Your task to perform on an android device: Open Google Maps and go to "Timeline" Image 0: 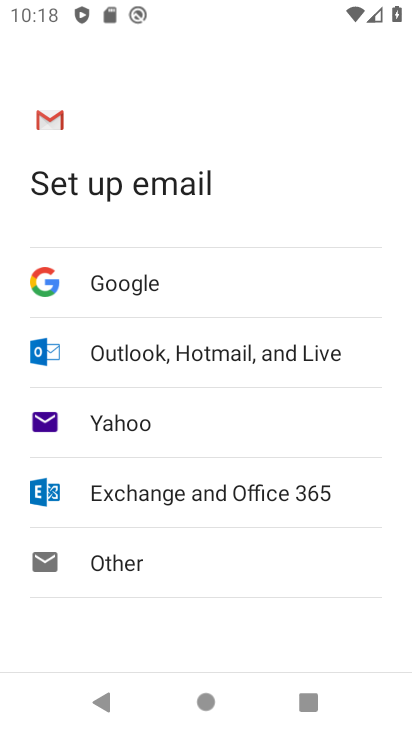
Step 0: press home button
Your task to perform on an android device: Open Google Maps and go to "Timeline" Image 1: 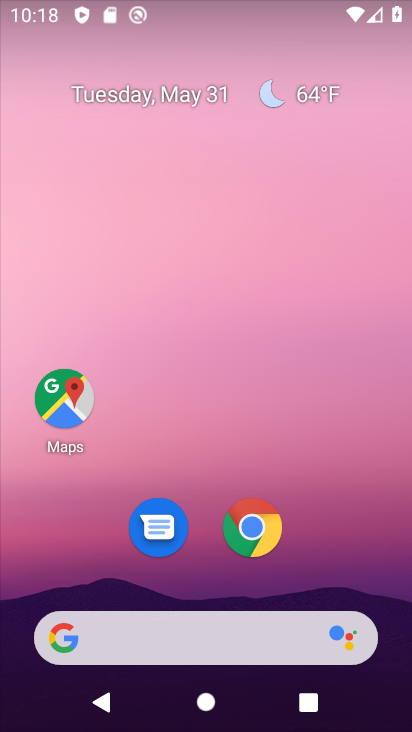
Step 1: click (76, 384)
Your task to perform on an android device: Open Google Maps and go to "Timeline" Image 2: 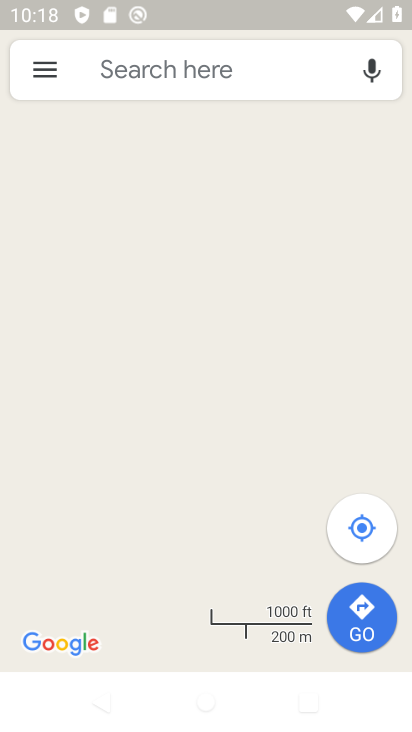
Step 2: click (34, 71)
Your task to perform on an android device: Open Google Maps and go to "Timeline" Image 3: 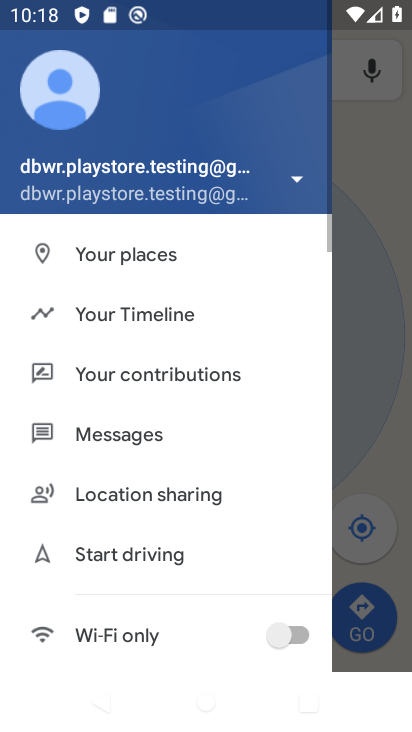
Step 3: click (160, 308)
Your task to perform on an android device: Open Google Maps and go to "Timeline" Image 4: 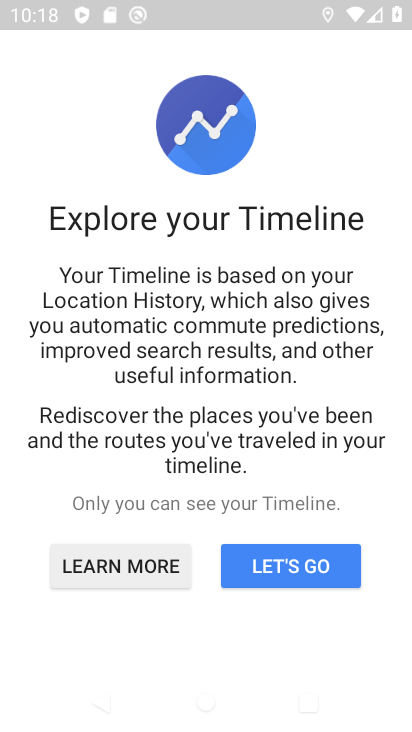
Step 4: drag from (306, 660) to (296, 193)
Your task to perform on an android device: Open Google Maps and go to "Timeline" Image 5: 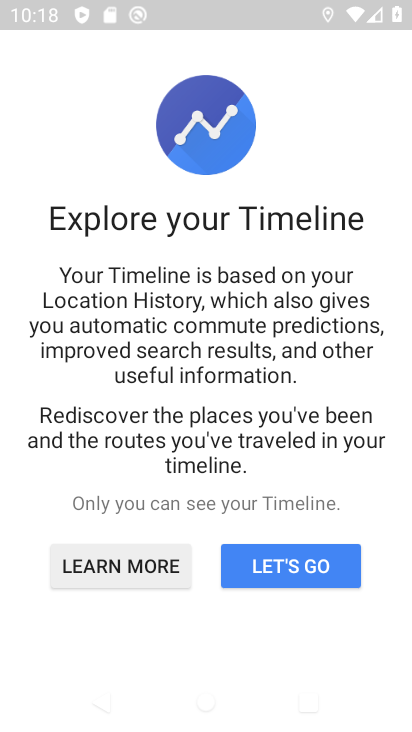
Step 5: drag from (193, 600) to (325, 57)
Your task to perform on an android device: Open Google Maps and go to "Timeline" Image 6: 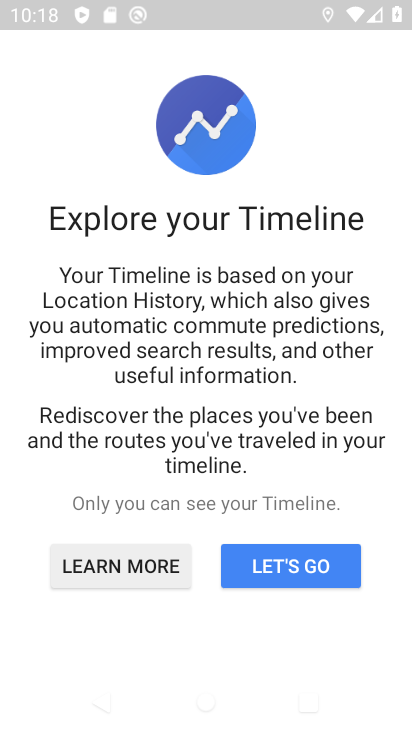
Step 6: press back button
Your task to perform on an android device: Open Google Maps and go to "Timeline" Image 7: 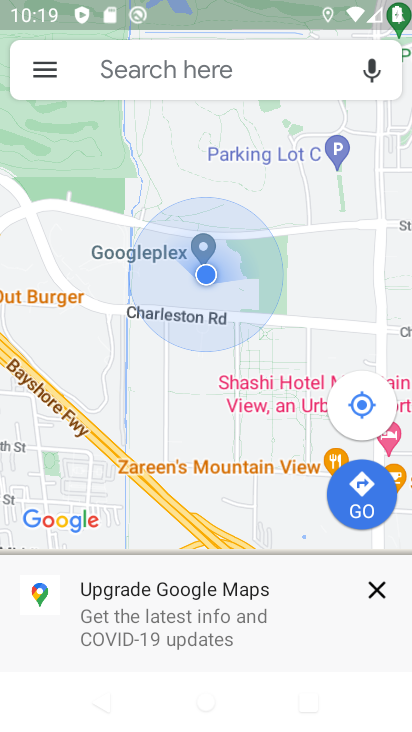
Step 7: click (35, 67)
Your task to perform on an android device: Open Google Maps and go to "Timeline" Image 8: 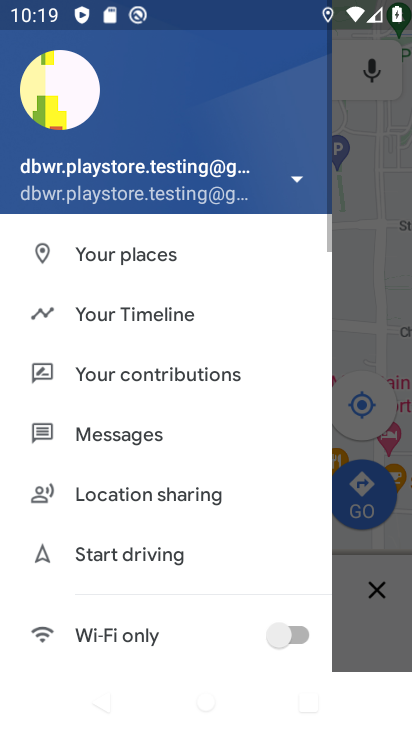
Step 8: click (108, 311)
Your task to perform on an android device: Open Google Maps and go to "Timeline" Image 9: 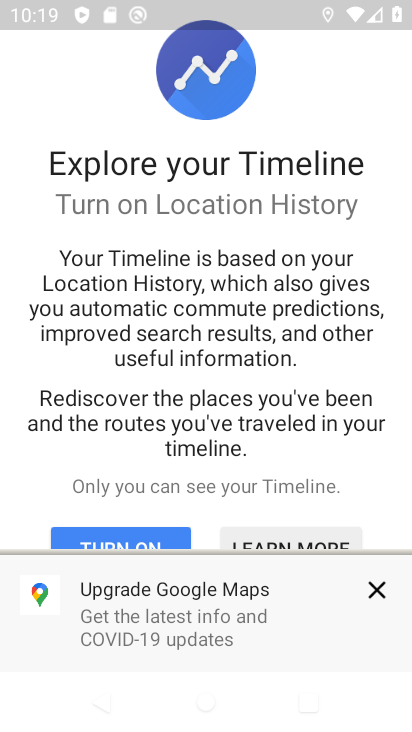
Step 9: click (377, 594)
Your task to perform on an android device: Open Google Maps and go to "Timeline" Image 10: 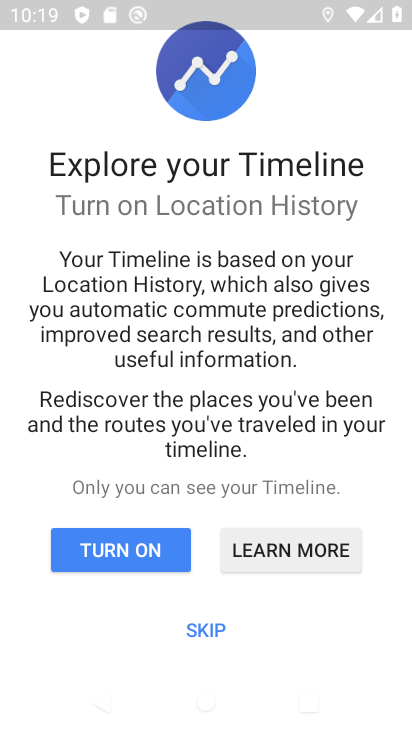
Step 10: click (201, 646)
Your task to perform on an android device: Open Google Maps and go to "Timeline" Image 11: 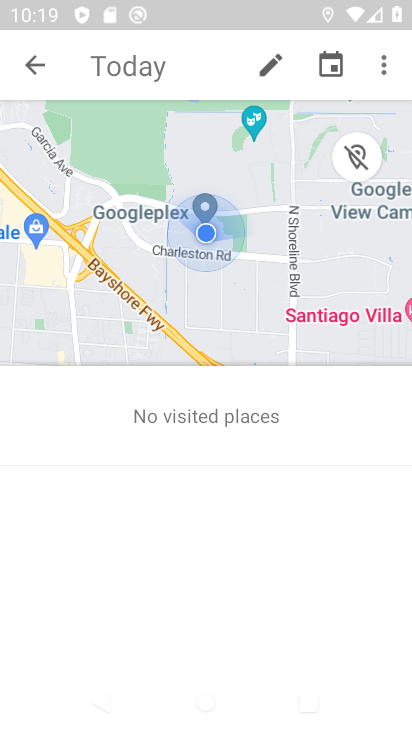
Step 11: task complete